Your task to perform on an android device: Search for energizer triple a on walmart, select the first entry, and add it to the cart. Image 0: 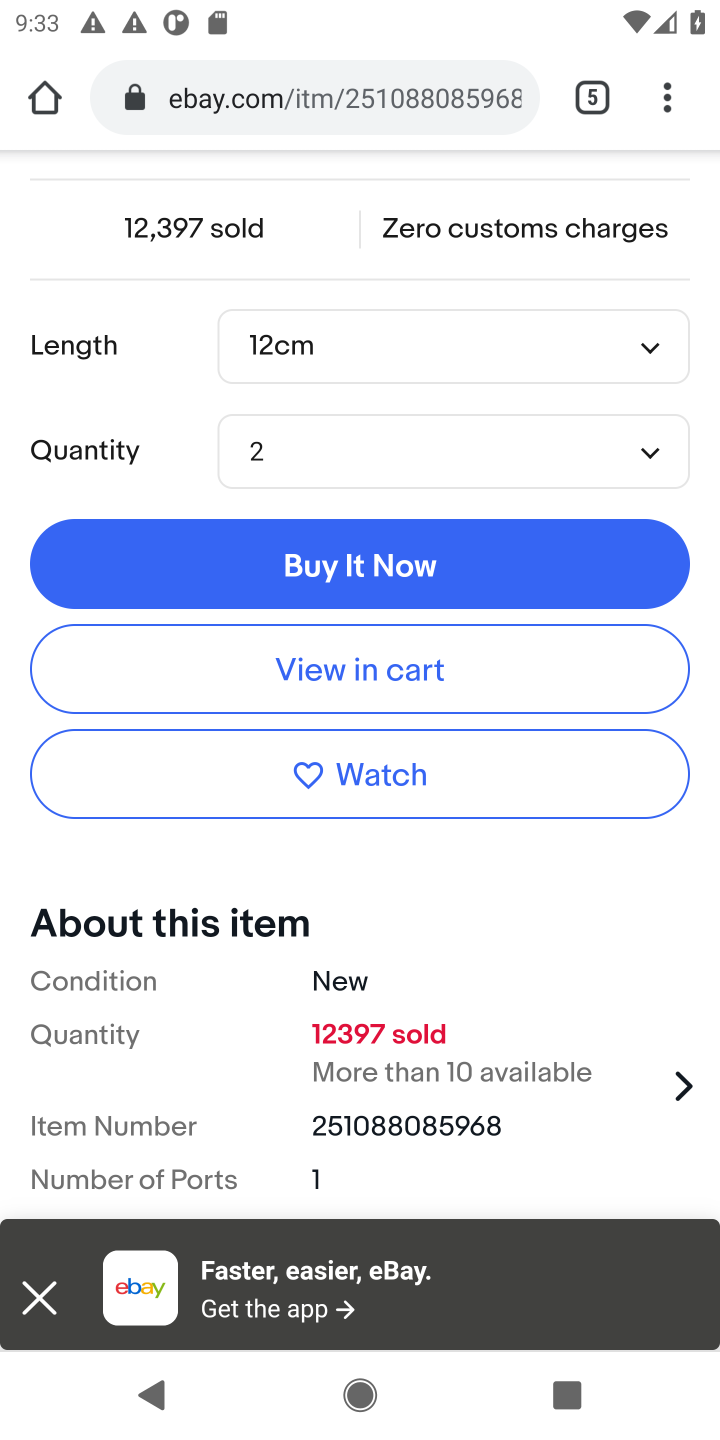
Step 0: click (593, 100)
Your task to perform on an android device: Search for energizer triple a on walmart, select the first entry, and add it to the cart. Image 1: 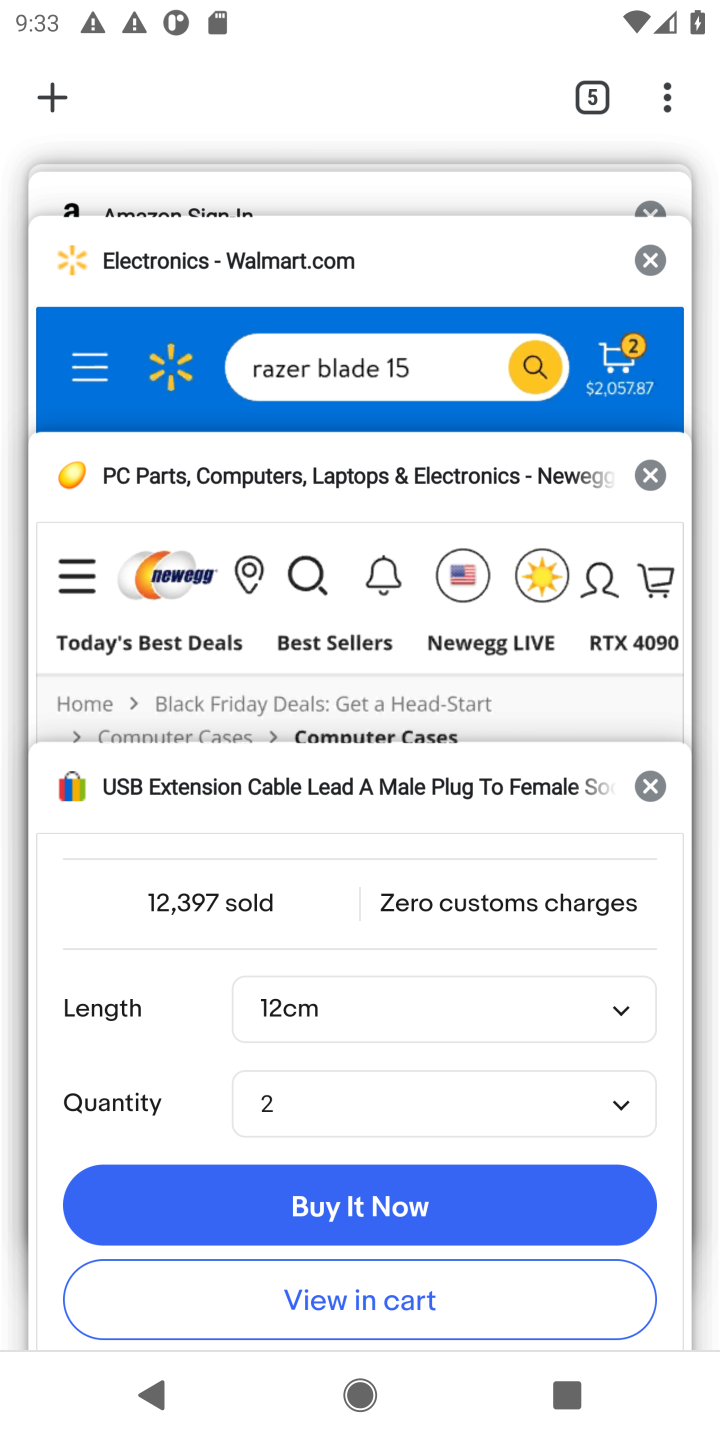
Step 1: click (231, 449)
Your task to perform on an android device: Search for energizer triple a on walmart, select the first entry, and add it to the cart. Image 2: 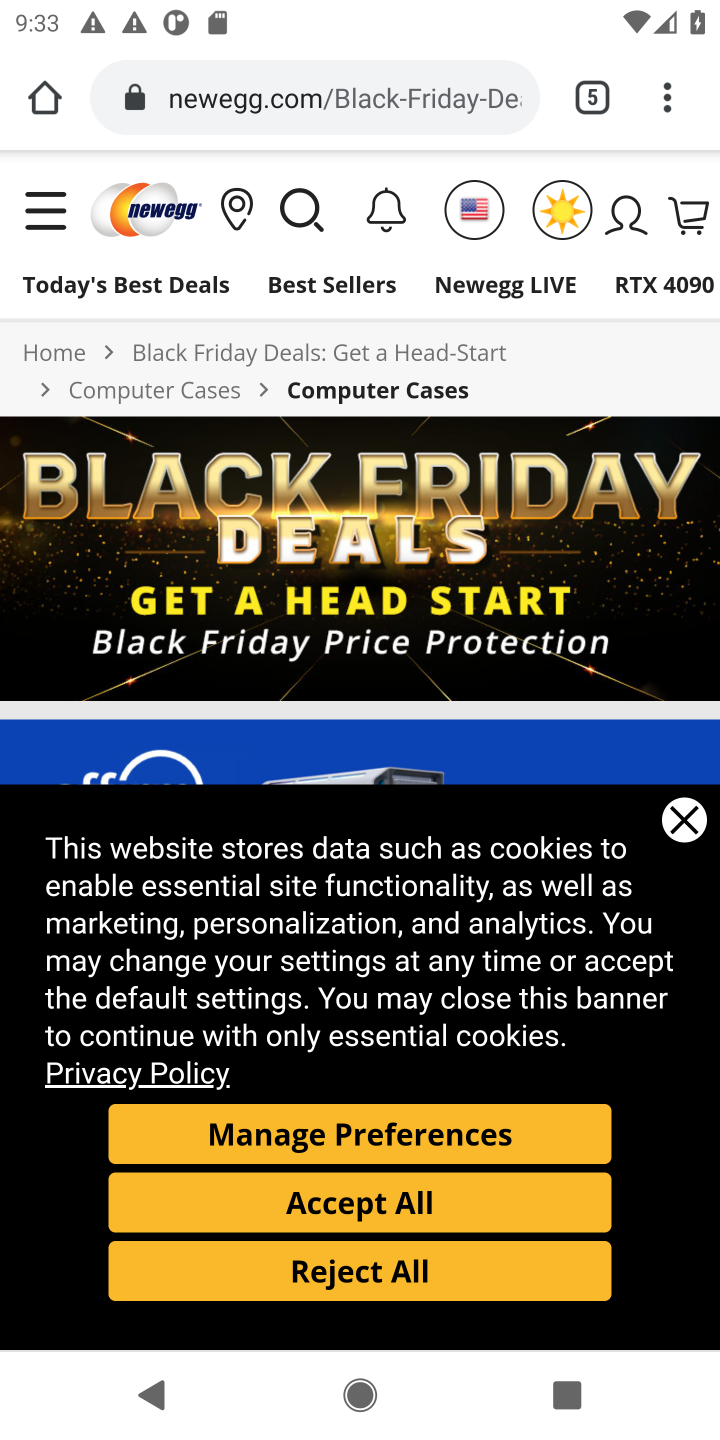
Step 2: click (591, 95)
Your task to perform on an android device: Search for energizer triple a on walmart, select the first entry, and add it to the cart. Image 3: 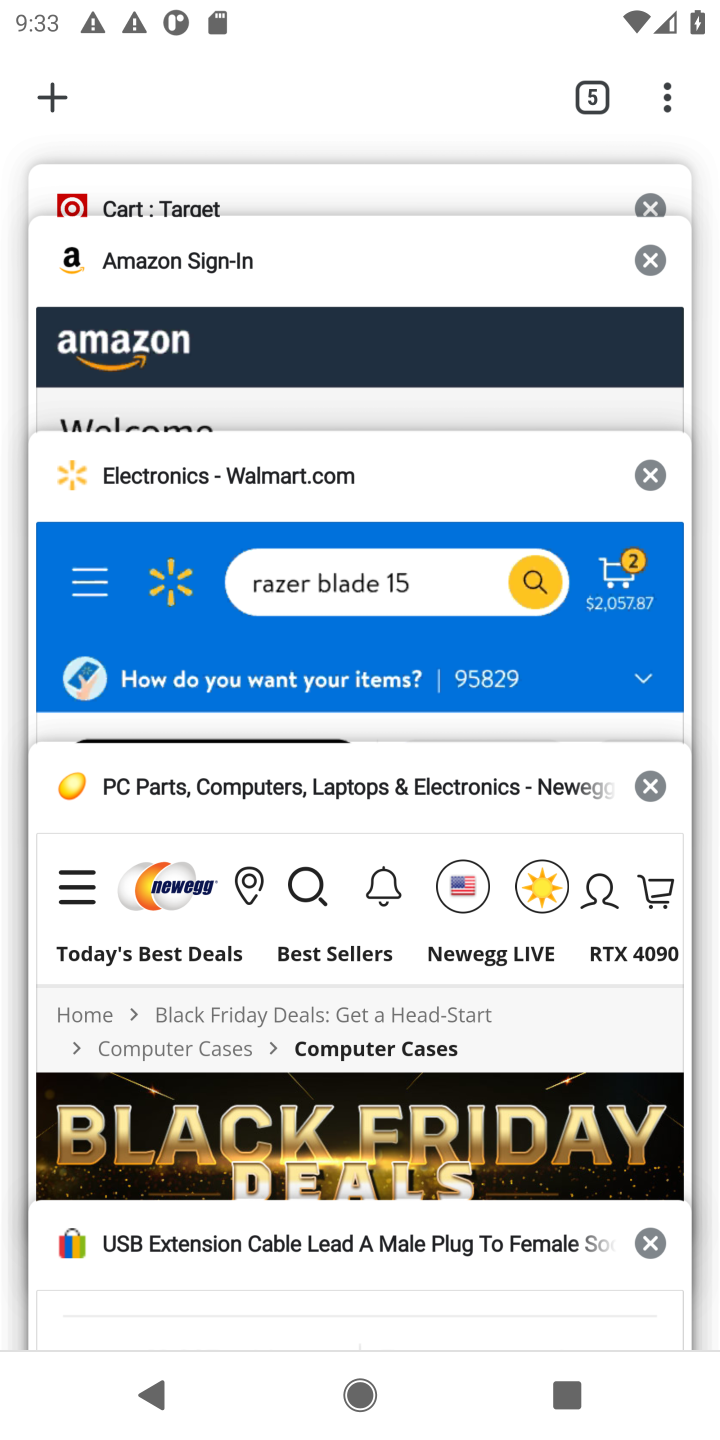
Step 3: click (229, 512)
Your task to perform on an android device: Search for energizer triple a on walmart, select the first entry, and add it to the cart. Image 4: 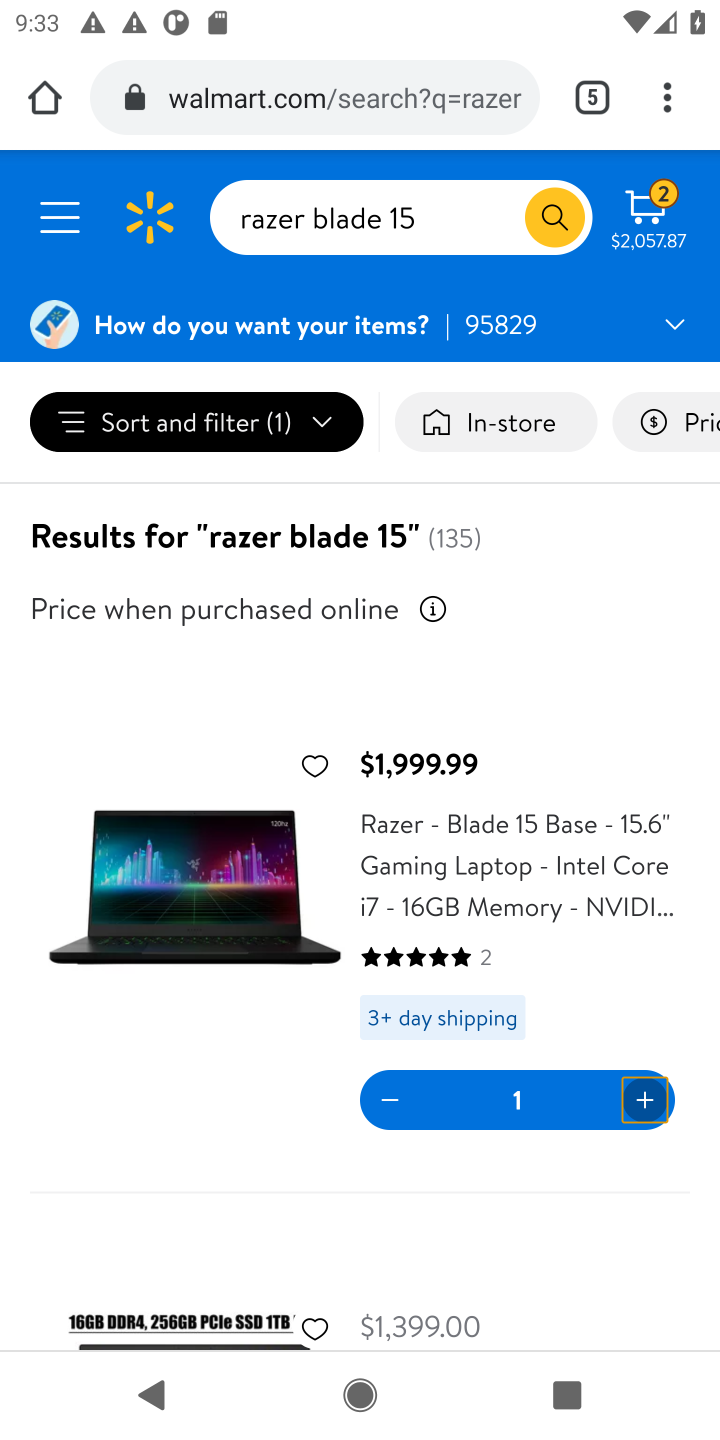
Step 4: click (452, 210)
Your task to perform on an android device: Search for energizer triple a on walmart, select the first entry, and add it to the cart. Image 5: 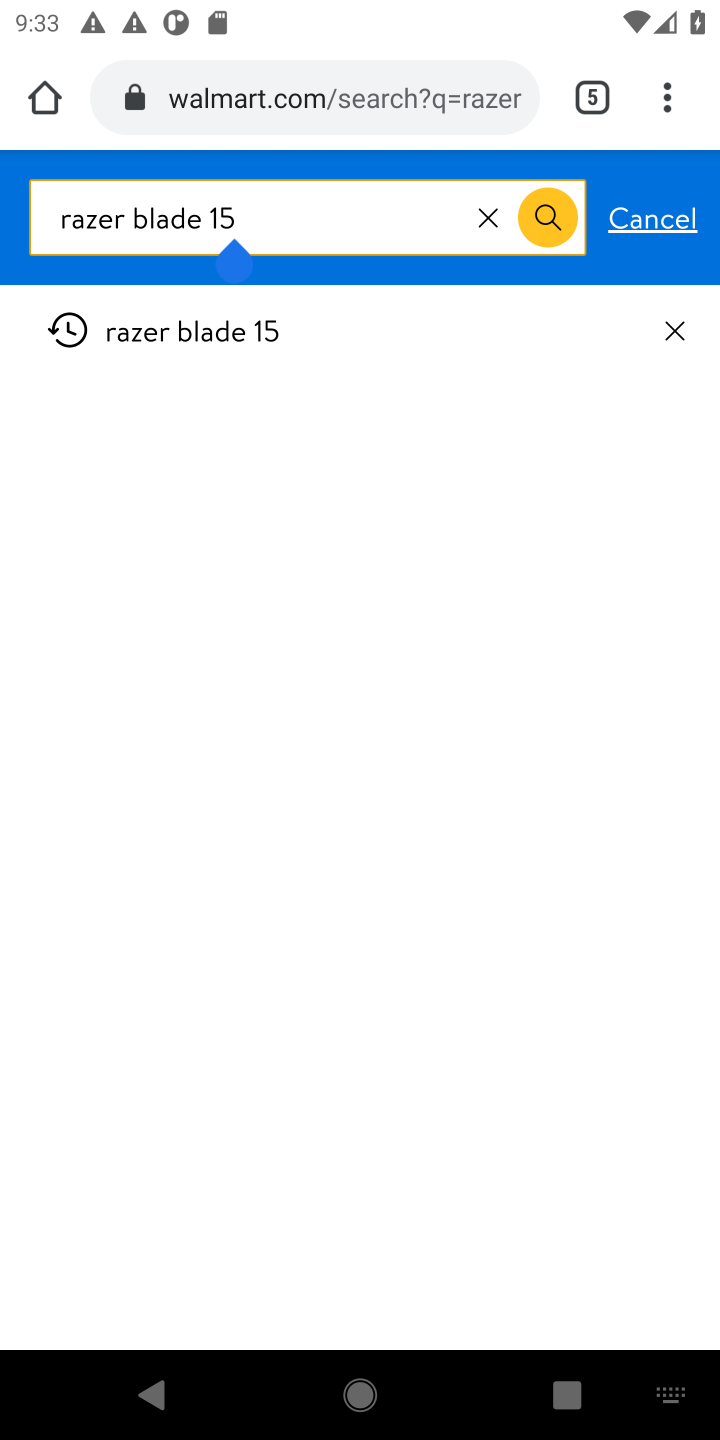
Step 5: click (490, 221)
Your task to perform on an android device: Search for energizer triple a on walmart, select the first entry, and add it to the cart. Image 6: 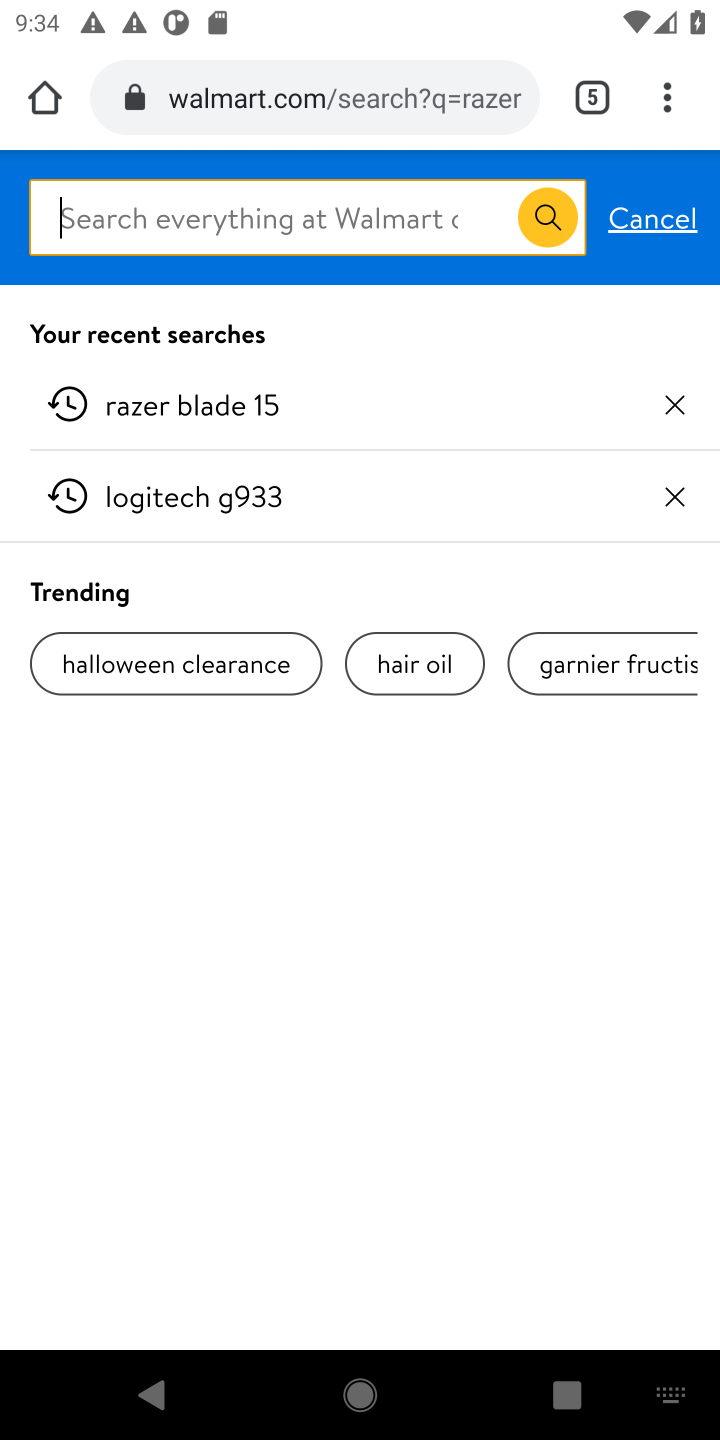
Step 6: type "energizer triple  a battery"
Your task to perform on an android device: Search for energizer triple a on walmart, select the first entry, and add it to the cart. Image 7: 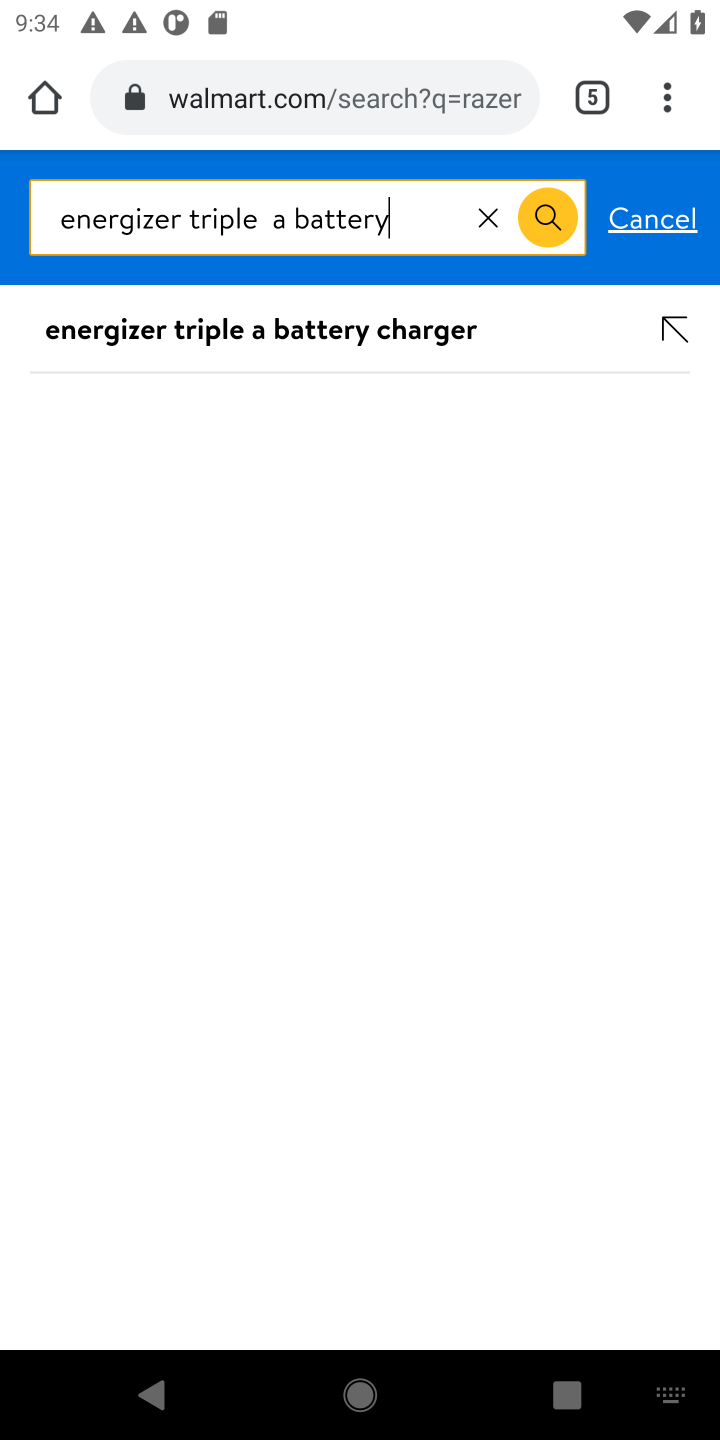
Step 7: click (319, 323)
Your task to perform on an android device: Search for energizer triple a on walmart, select the first entry, and add it to the cart. Image 8: 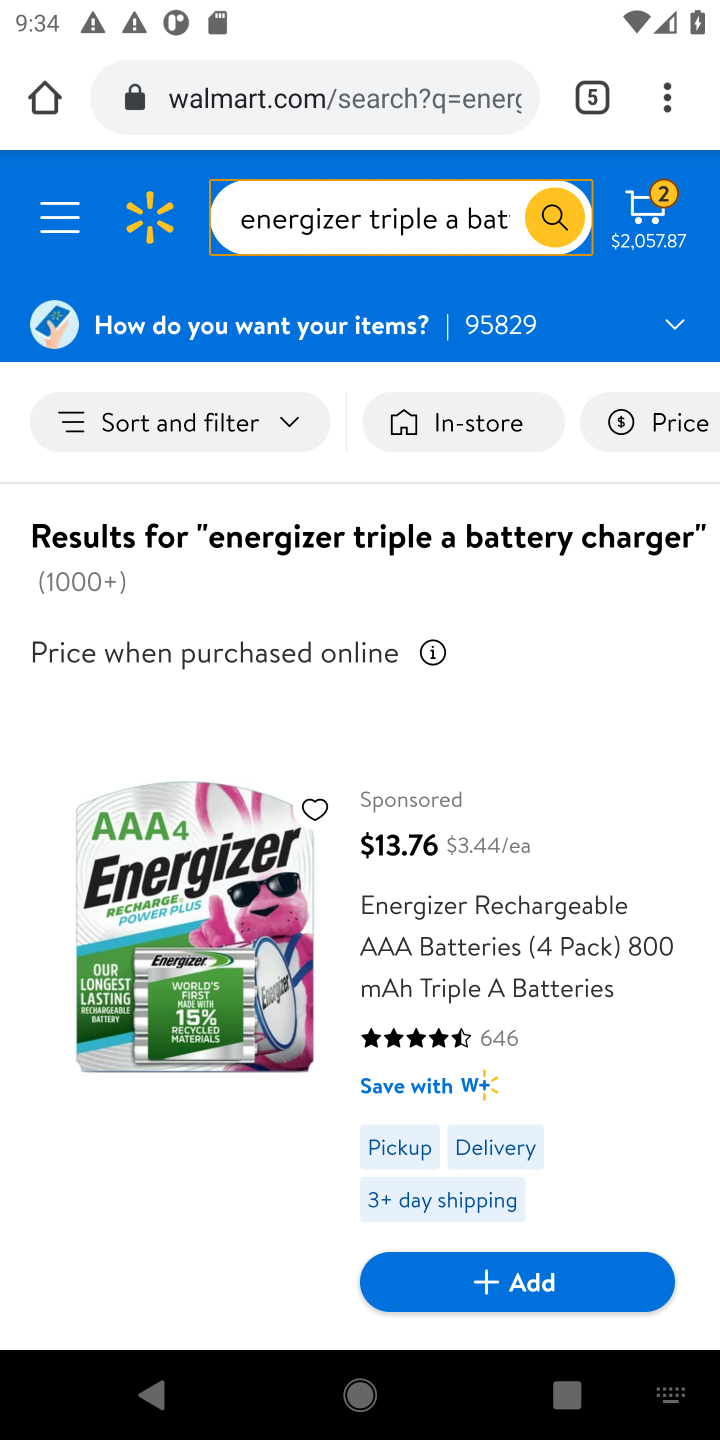
Step 8: click (497, 1286)
Your task to perform on an android device: Search for energizer triple a on walmart, select the first entry, and add it to the cart. Image 9: 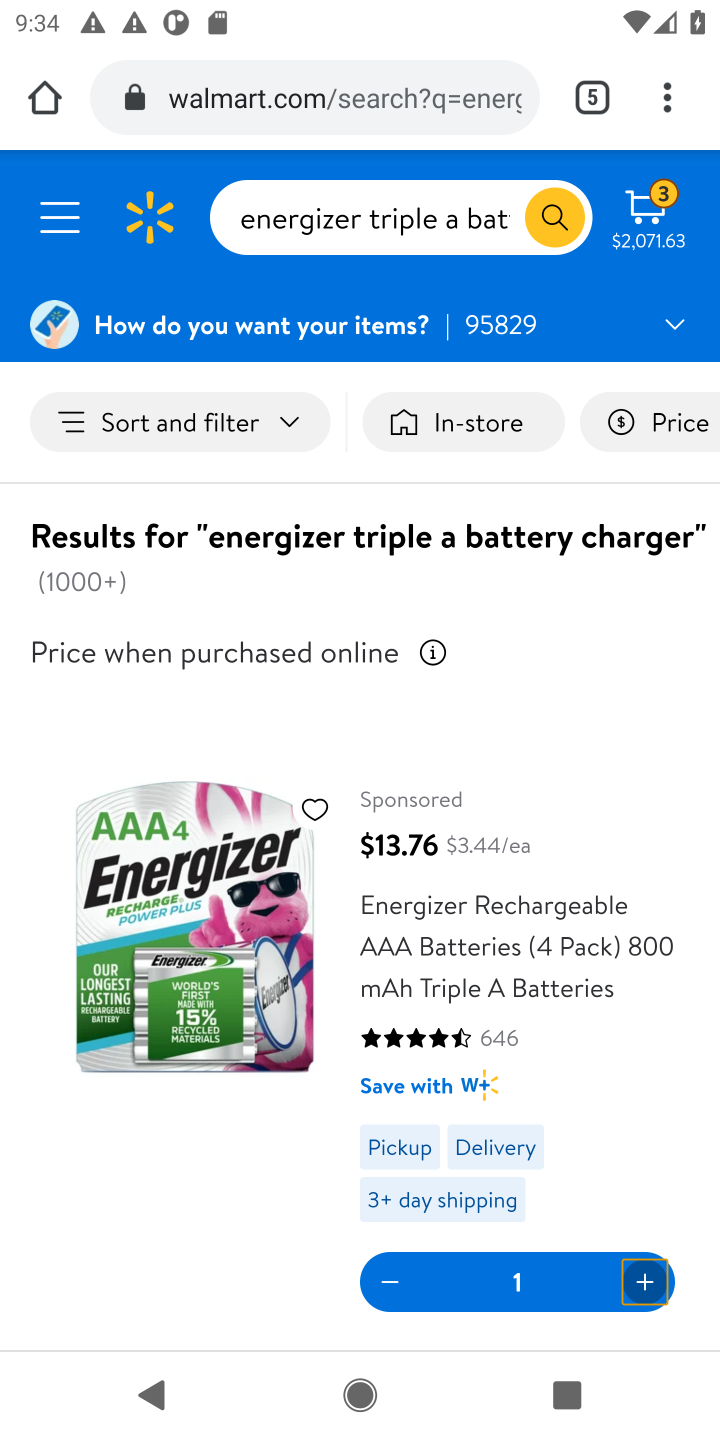
Step 9: task complete